Your task to perform on an android device: Is it going to rain this weekend? Image 0: 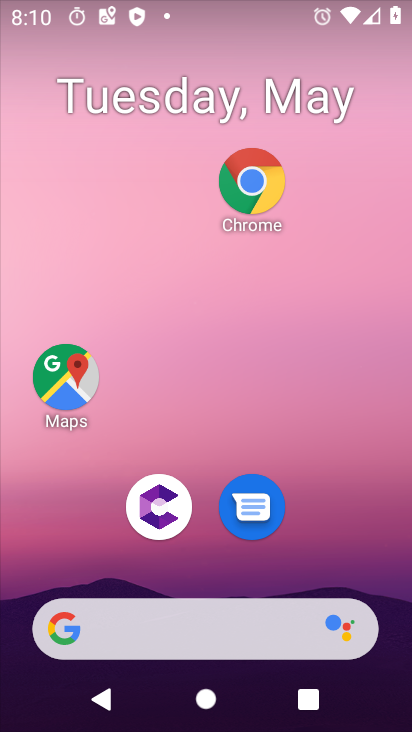
Step 0: click (141, 622)
Your task to perform on an android device: Is it going to rain this weekend? Image 1: 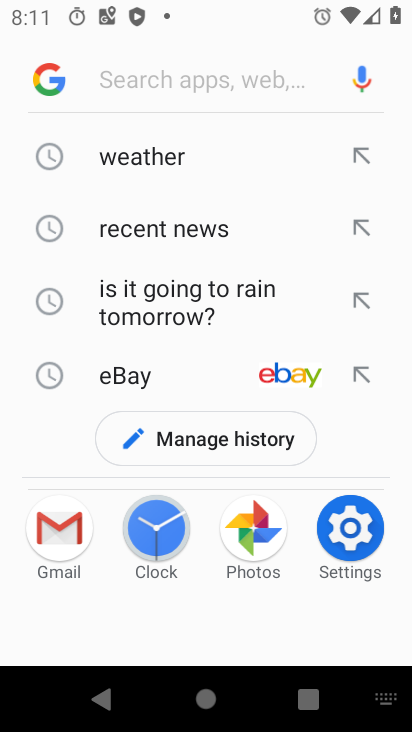
Step 1: type "is it going to rain this weekend"
Your task to perform on an android device: Is it going to rain this weekend? Image 2: 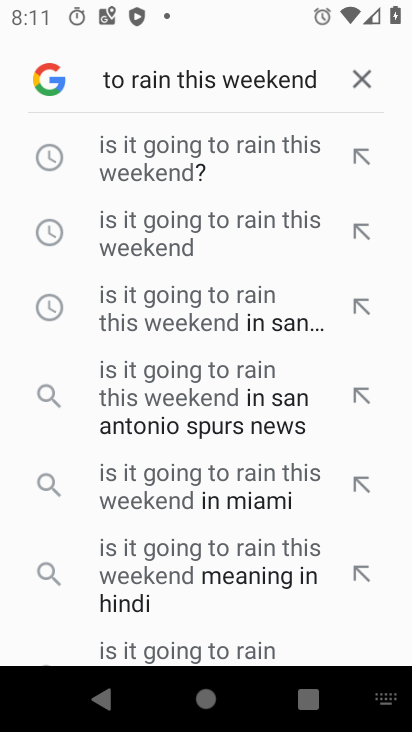
Step 2: click (208, 155)
Your task to perform on an android device: Is it going to rain this weekend? Image 3: 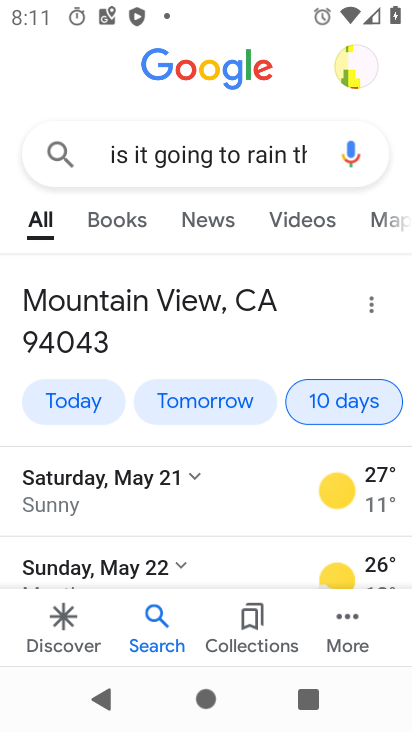
Step 3: task complete